Your task to perform on an android device: change keyboard looks Image 0: 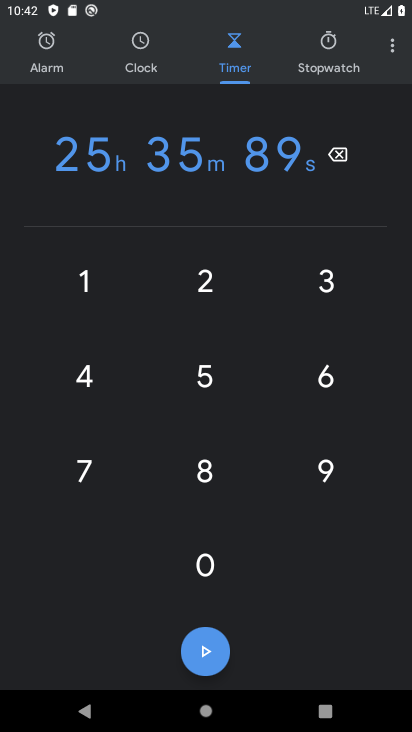
Step 0: press home button
Your task to perform on an android device: change keyboard looks Image 1: 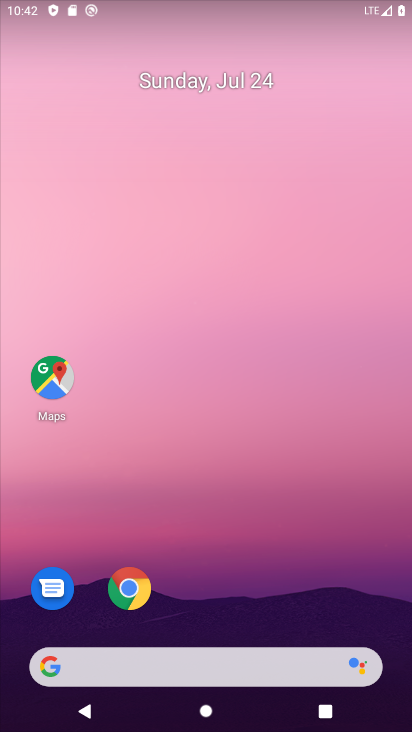
Step 1: drag from (147, 646) to (229, 32)
Your task to perform on an android device: change keyboard looks Image 2: 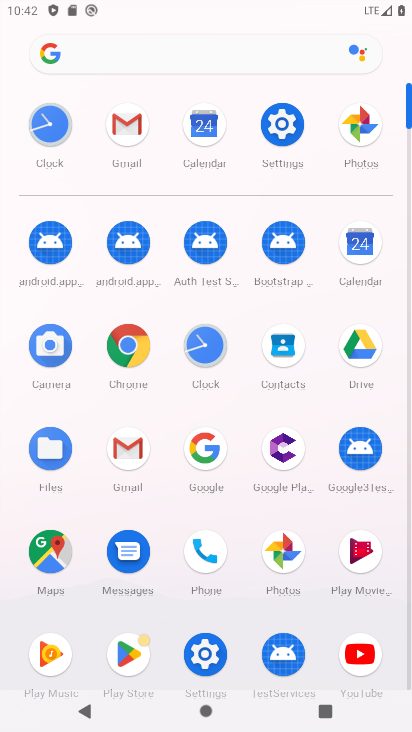
Step 2: click (277, 134)
Your task to perform on an android device: change keyboard looks Image 3: 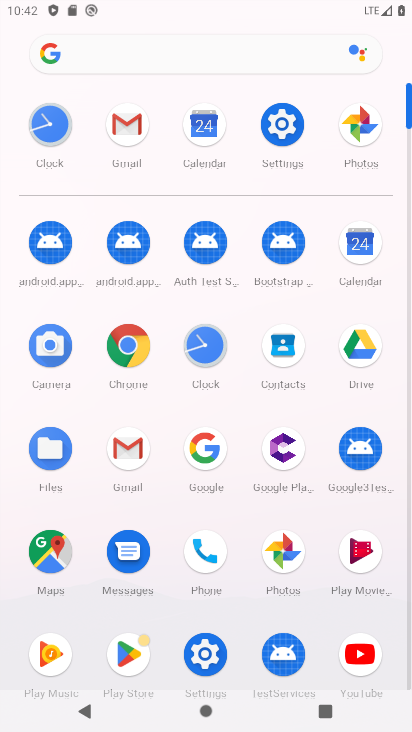
Step 3: click (277, 134)
Your task to perform on an android device: change keyboard looks Image 4: 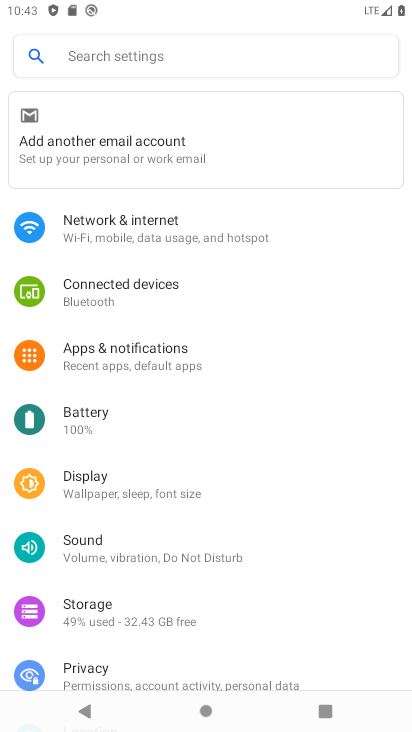
Step 4: drag from (248, 591) to (195, 11)
Your task to perform on an android device: change keyboard looks Image 5: 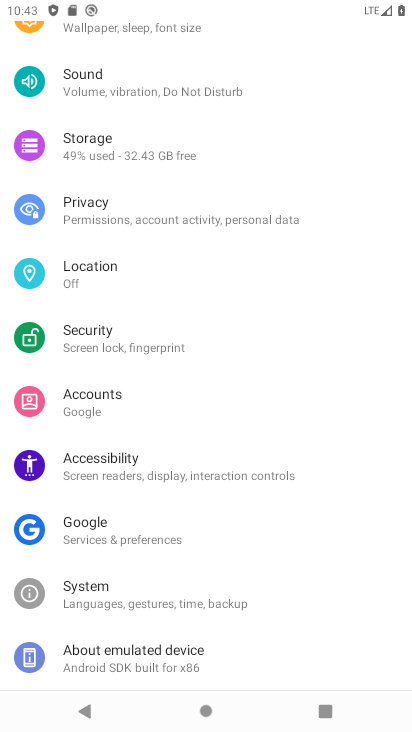
Step 5: click (199, 589)
Your task to perform on an android device: change keyboard looks Image 6: 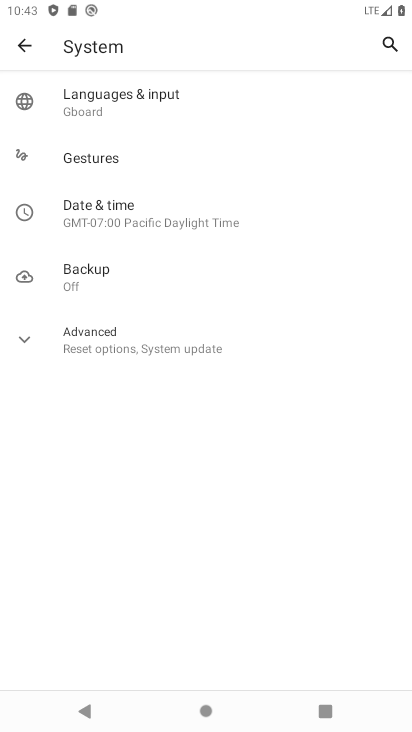
Step 6: click (140, 85)
Your task to perform on an android device: change keyboard looks Image 7: 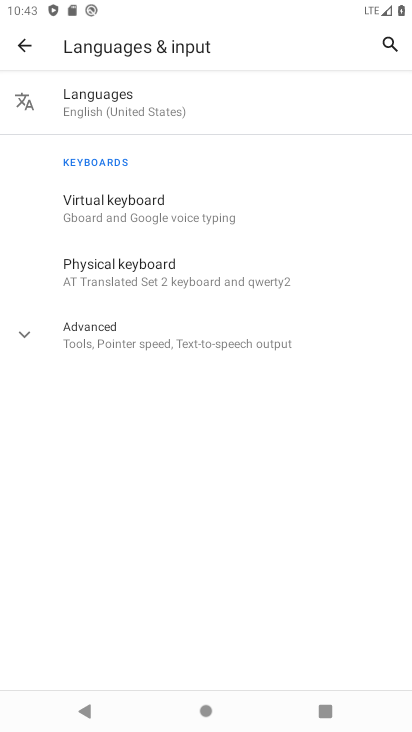
Step 7: click (145, 213)
Your task to perform on an android device: change keyboard looks Image 8: 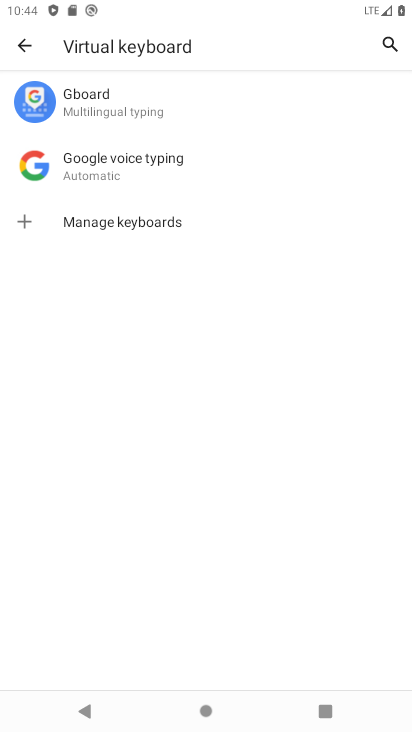
Step 8: click (161, 105)
Your task to perform on an android device: change keyboard looks Image 9: 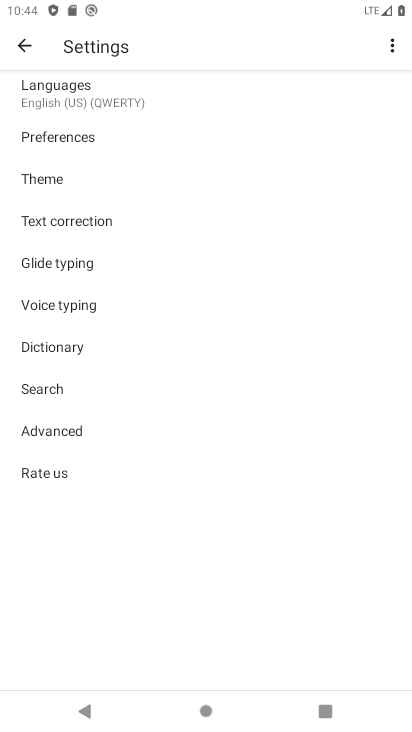
Step 9: click (48, 178)
Your task to perform on an android device: change keyboard looks Image 10: 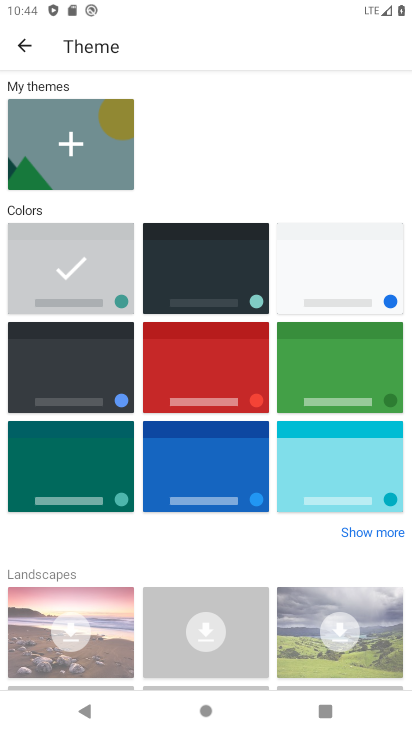
Step 10: click (212, 496)
Your task to perform on an android device: change keyboard looks Image 11: 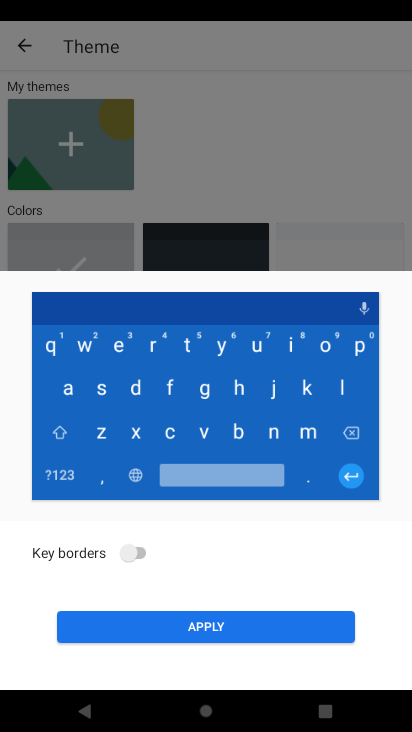
Step 11: click (250, 645)
Your task to perform on an android device: change keyboard looks Image 12: 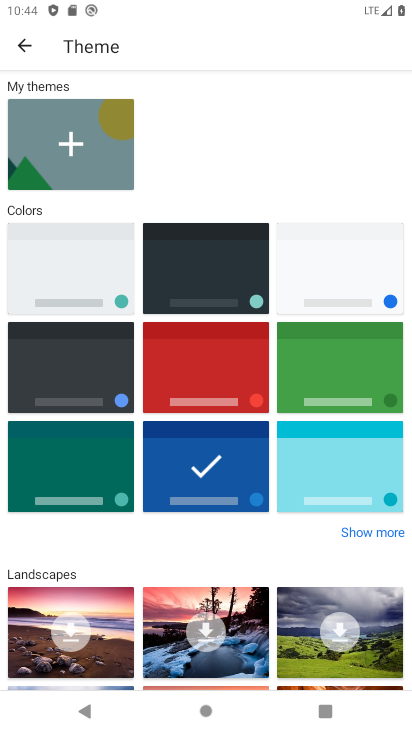
Step 12: task complete